Your task to perform on an android device: Find coffee shops on Maps Image 0: 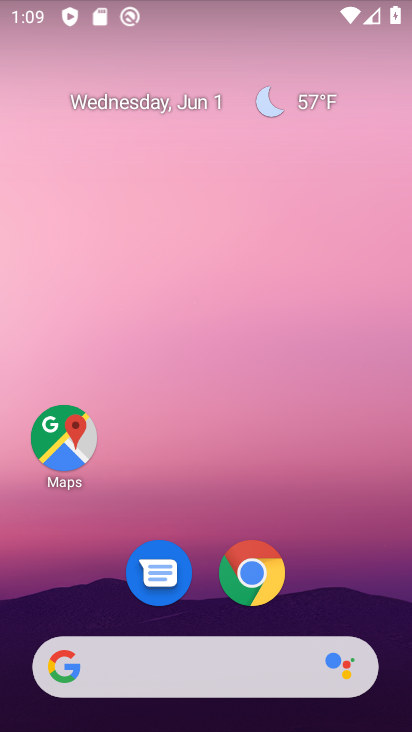
Step 0: drag from (219, 11) to (130, 2)
Your task to perform on an android device: Find coffee shops on Maps Image 1: 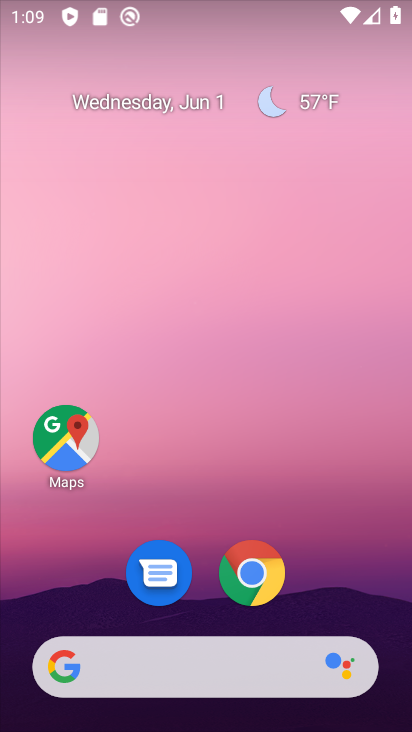
Step 1: click (63, 439)
Your task to perform on an android device: Find coffee shops on Maps Image 2: 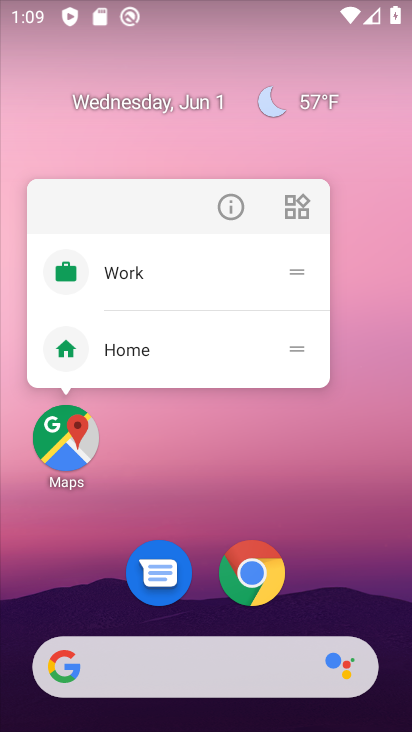
Step 2: click (231, 215)
Your task to perform on an android device: Find coffee shops on Maps Image 3: 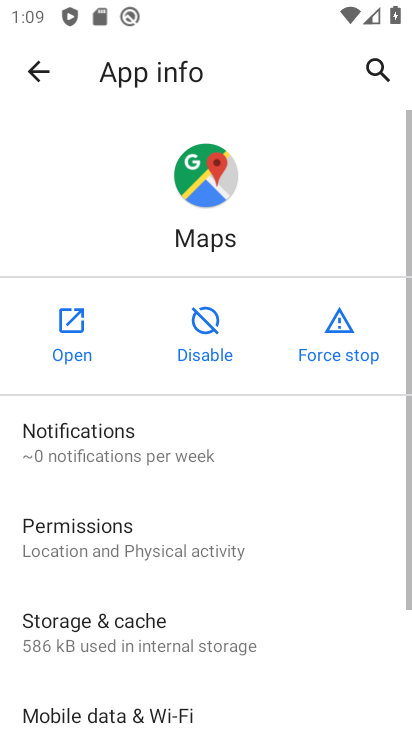
Step 3: click (77, 319)
Your task to perform on an android device: Find coffee shops on Maps Image 4: 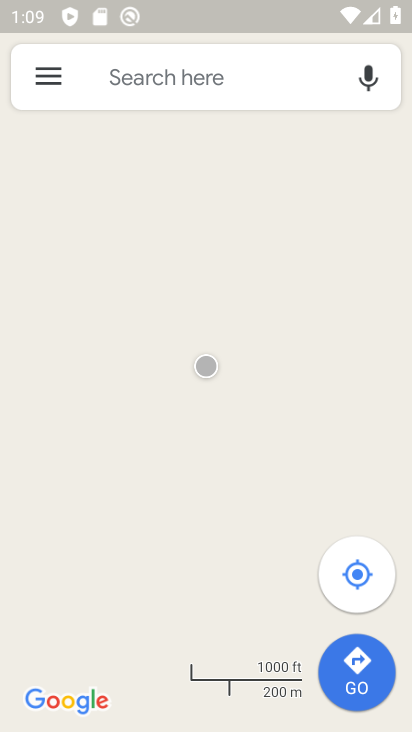
Step 4: click (129, 51)
Your task to perform on an android device: Find coffee shops on Maps Image 5: 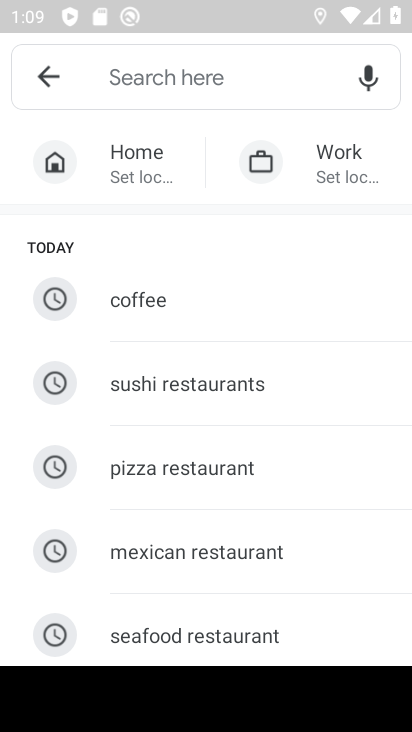
Step 5: click (222, 307)
Your task to perform on an android device: Find coffee shops on Maps Image 6: 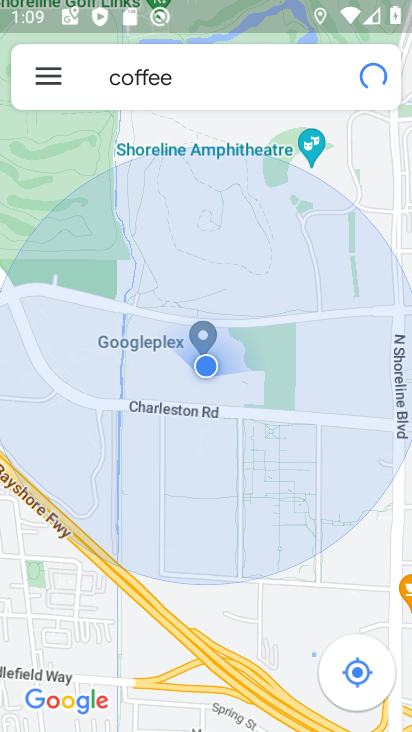
Step 6: task complete